Your task to perform on an android device: Do I have any events this weekend? Image 0: 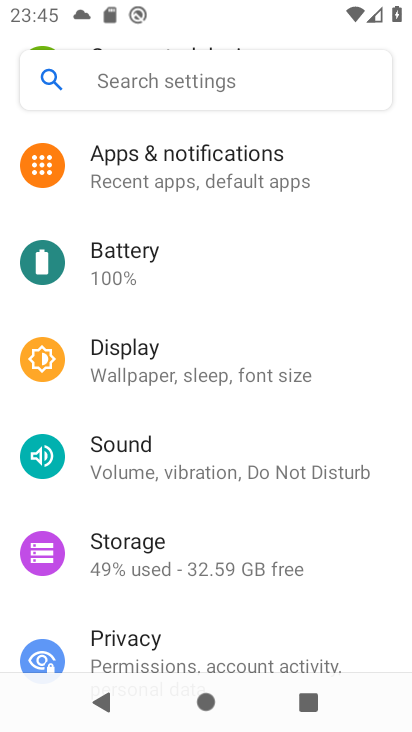
Step 0: press home button
Your task to perform on an android device: Do I have any events this weekend? Image 1: 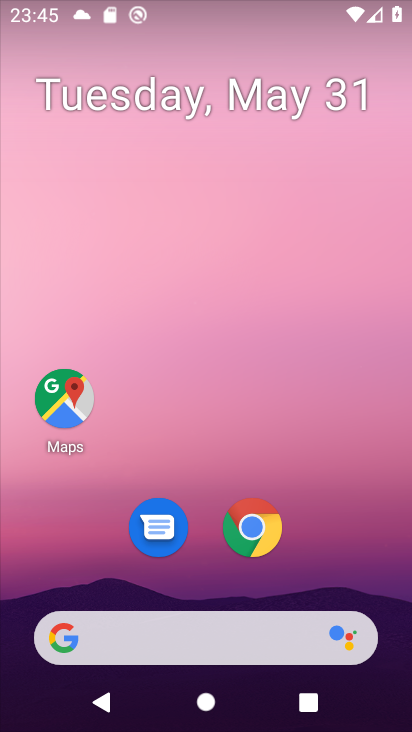
Step 1: click (168, 97)
Your task to perform on an android device: Do I have any events this weekend? Image 2: 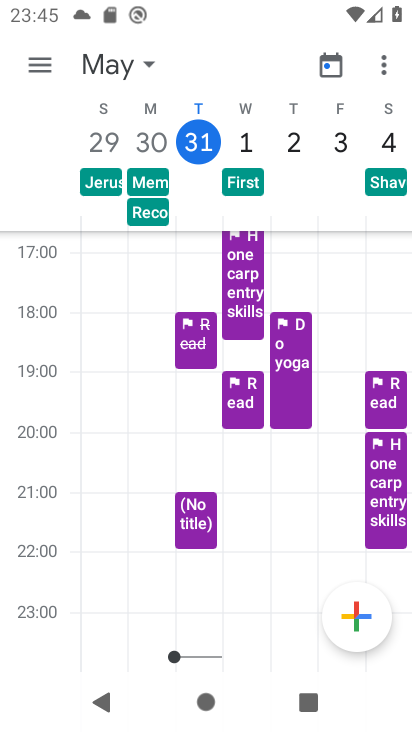
Step 2: task complete